Your task to perform on an android device: Open settings on Google Maps Image 0: 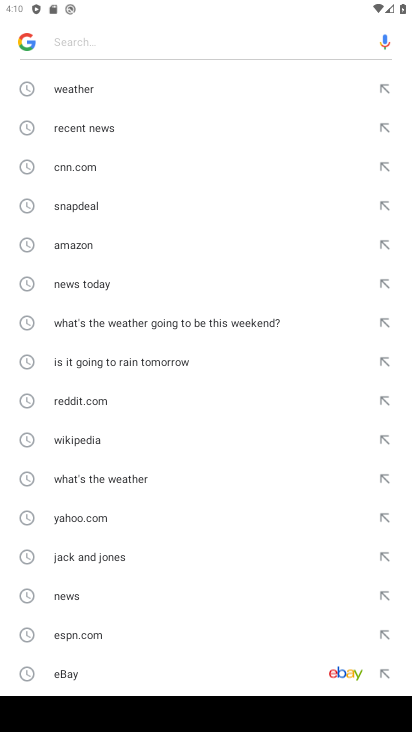
Step 0: press home button
Your task to perform on an android device: Open settings on Google Maps Image 1: 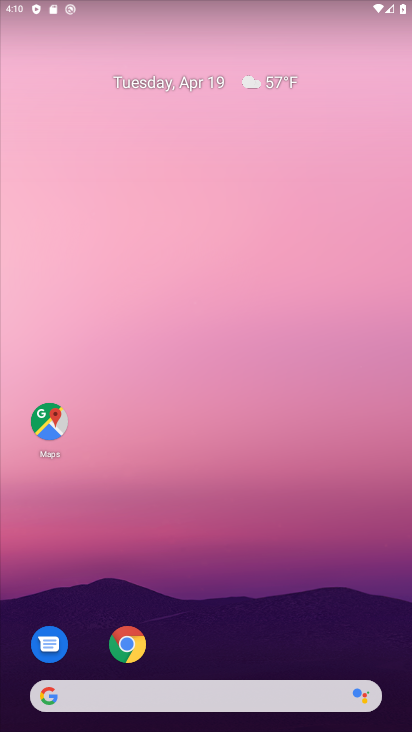
Step 1: drag from (257, 328) to (282, 160)
Your task to perform on an android device: Open settings on Google Maps Image 2: 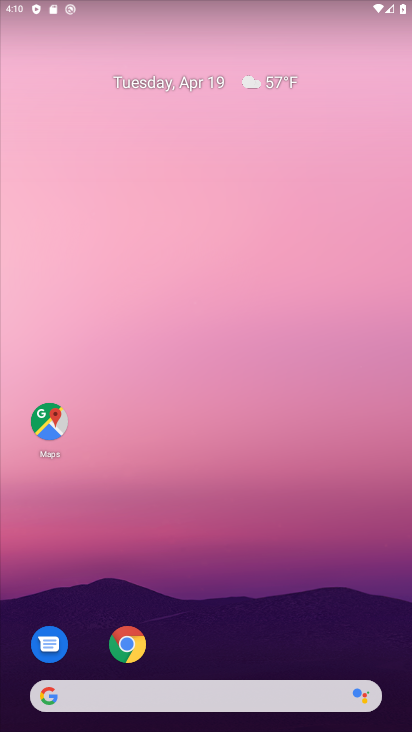
Step 2: drag from (234, 609) to (255, 107)
Your task to perform on an android device: Open settings on Google Maps Image 3: 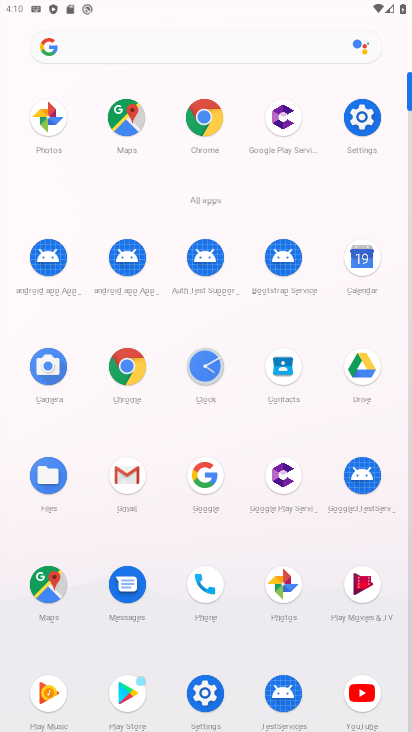
Step 3: click (139, 116)
Your task to perform on an android device: Open settings on Google Maps Image 4: 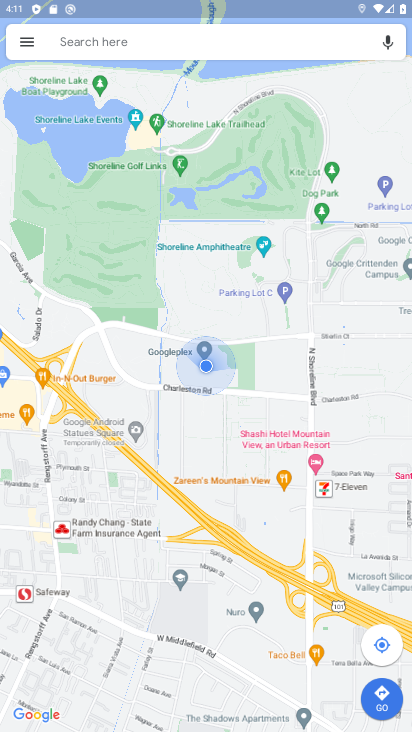
Step 4: click (28, 42)
Your task to perform on an android device: Open settings on Google Maps Image 5: 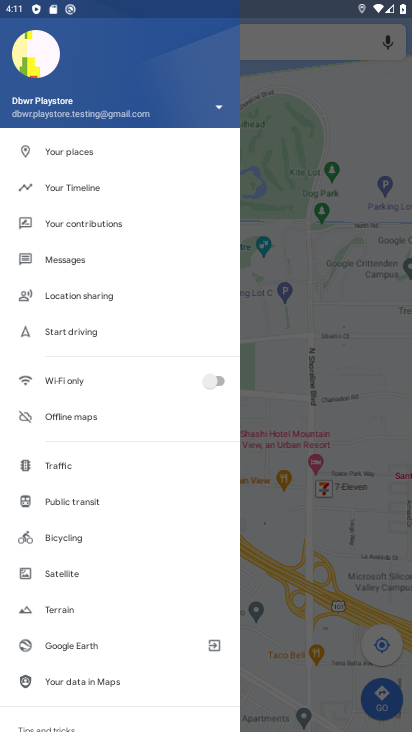
Step 5: drag from (102, 631) to (175, 235)
Your task to perform on an android device: Open settings on Google Maps Image 6: 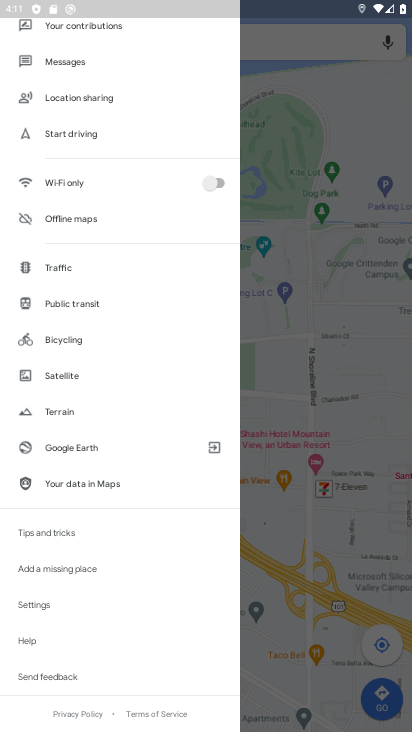
Step 6: click (18, 588)
Your task to perform on an android device: Open settings on Google Maps Image 7: 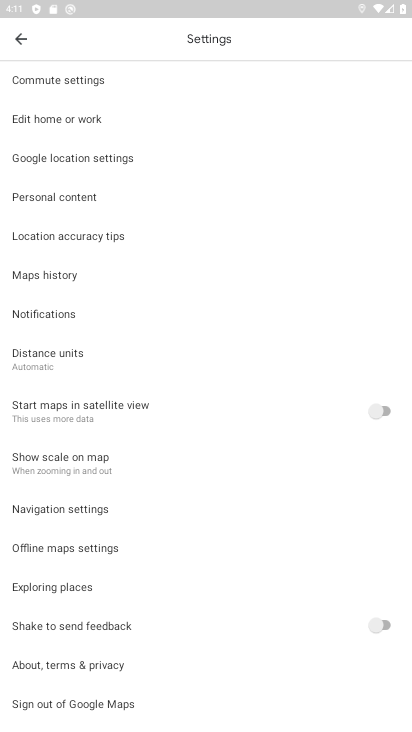
Step 7: task complete